Your task to perform on an android device: Go to privacy settings Image 0: 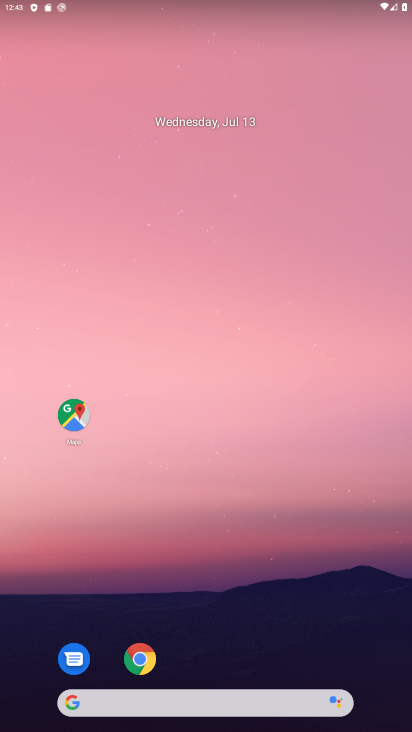
Step 0: drag from (132, 693) to (109, 38)
Your task to perform on an android device: Go to privacy settings Image 1: 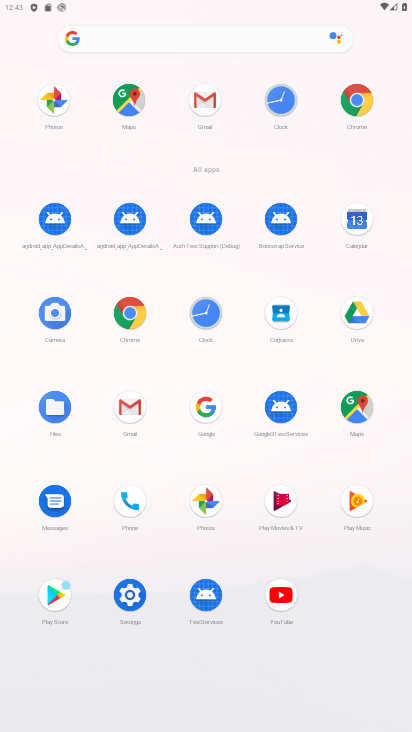
Step 1: click (137, 590)
Your task to perform on an android device: Go to privacy settings Image 2: 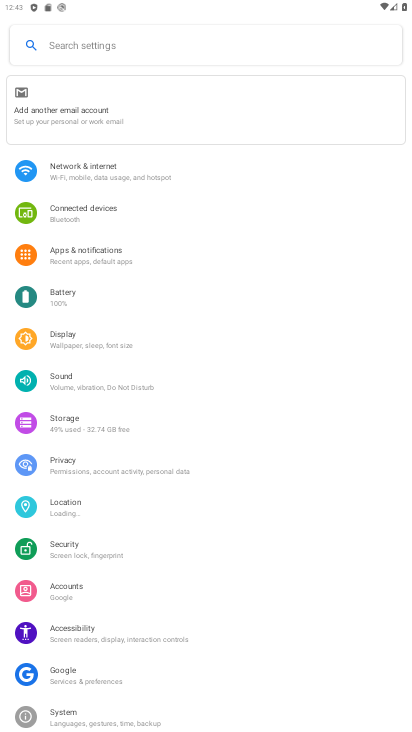
Step 2: click (118, 472)
Your task to perform on an android device: Go to privacy settings Image 3: 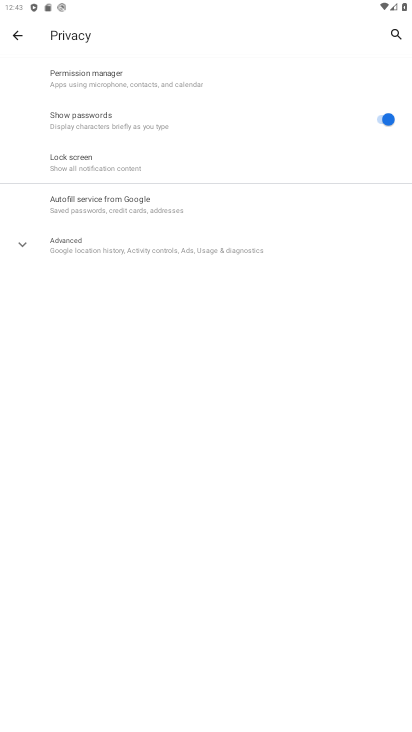
Step 3: task complete